Your task to perform on an android device: Open calendar and show me the fourth week of next month Image 0: 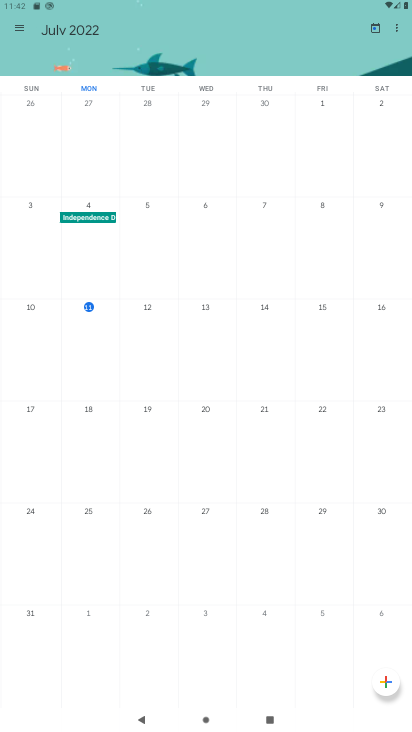
Step 0: press home button
Your task to perform on an android device: Open calendar and show me the fourth week of next month Image 1: 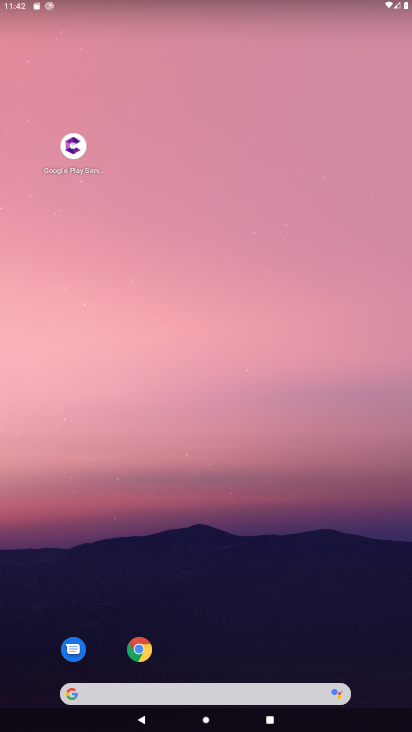
Step 1: drag from (219, 593) to (146, 132)
Your task to perform on an android device: Open calendar and show me the fourth week of next month Image 2: 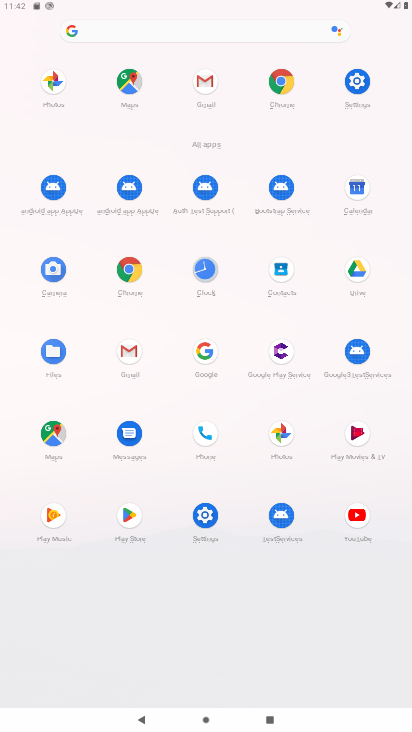
Step 2: click (360, 187)
Your task to perform on an android device: Open calendar and show me the fourth week of next month Image 3: 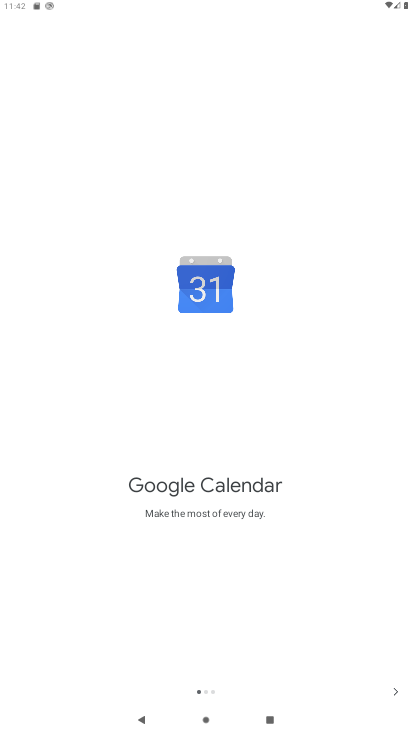
Step 3: click (393, 691)
Your task to perform on an android device: Open calendar and show me the fourth week of next month Image 4: 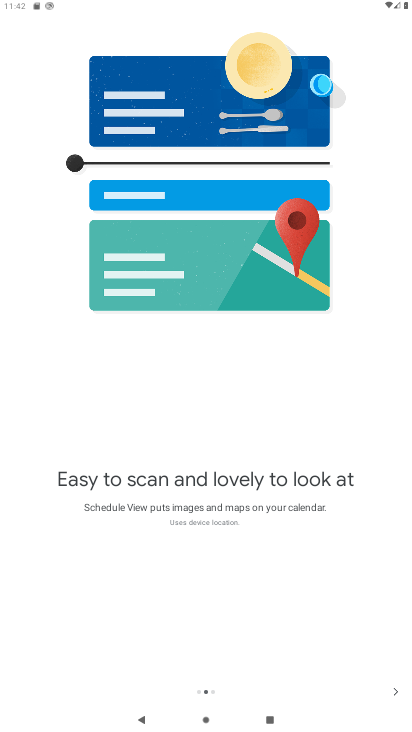
Step 4: click (393, 691)
Your task to perform on an android device: Open calendar and show me the fourth week of next month Image 5: 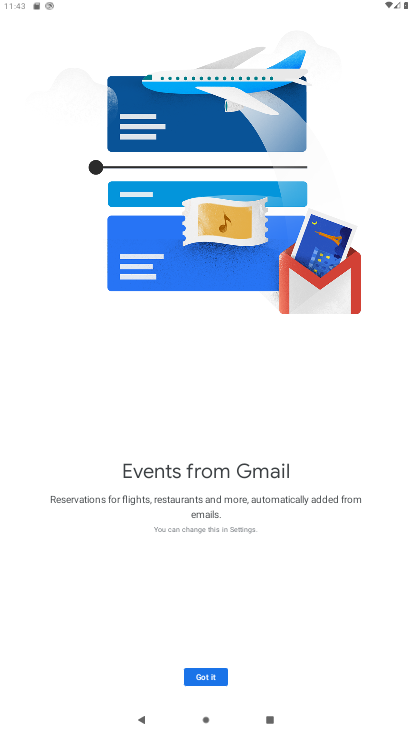
Step 5: click (211, 679)
Your task to perform on an android device: Open calendar and show me the fourth week of next month Image 6: 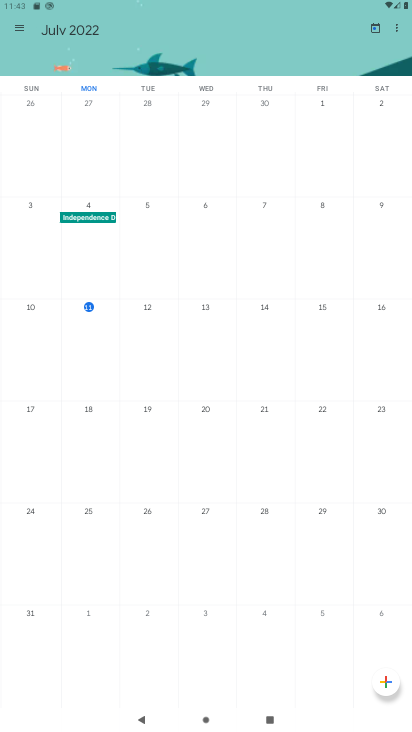
Step 6: click (21, 25)
Your task to perform on an android device: Open calendar and show me the fourth week of next month Image 7: 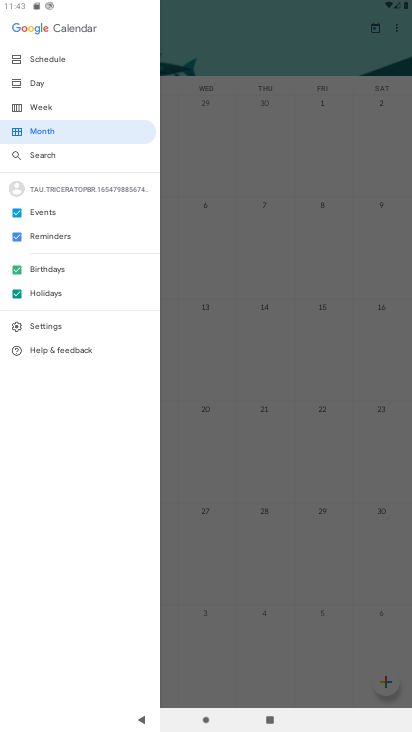
Step 7: click (42, 105)
Your task to perform on an android device: Open calendar and show me the fourth week of next month Image 8: 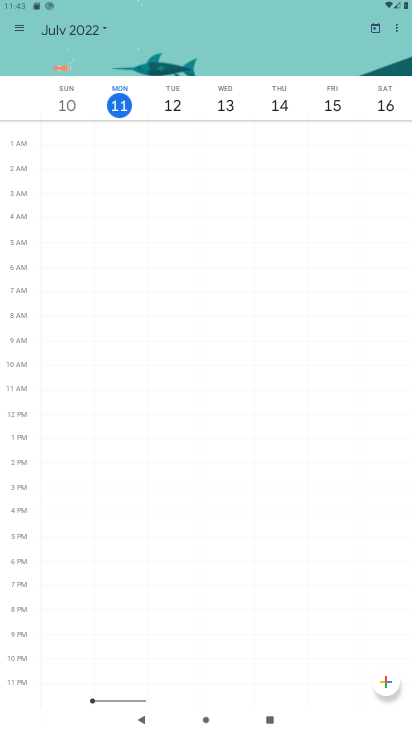
Step 8: click (87, 33)
Your task to perform on an android device: Open calendar and show me the fourth week of next month Image 9: 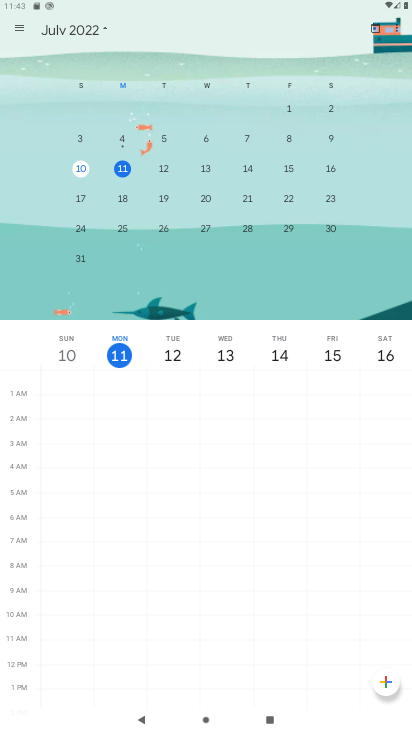
Step 9: drag from (324, 142) to (46, 185)
Your task to perform on an android device: Open calendar and show me the fourth week of next month Image 10: 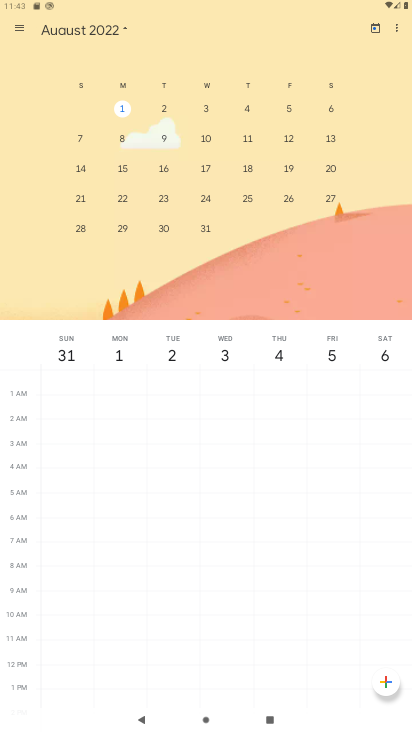
Step 10: click (164, 189)
Your task to perform on an android device: Open calendar and show me the fourth week of next month Image 11: 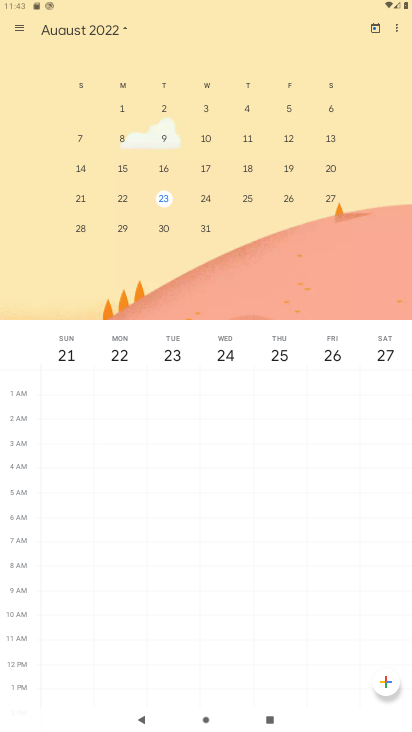
Step 11: task complete